Your task to perform on an android device: delete browsing data in the chrome app Image 0: 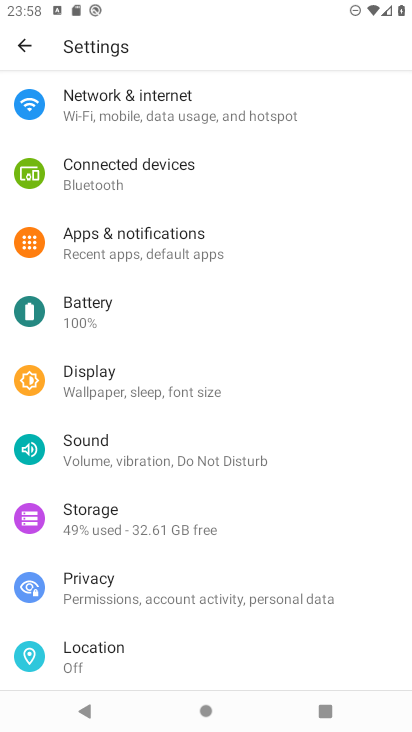
Step 0: press home button
Your task to perform on an android device: delete browsing data in the chrome app Image 1: 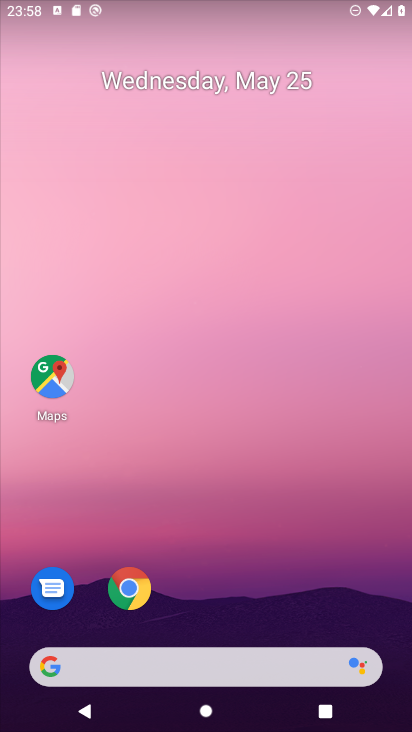
Step 1: drag from (0, 0) to (317, 46)
Your task to perform on an android device: delete browsing data in the chrome app Image 2: 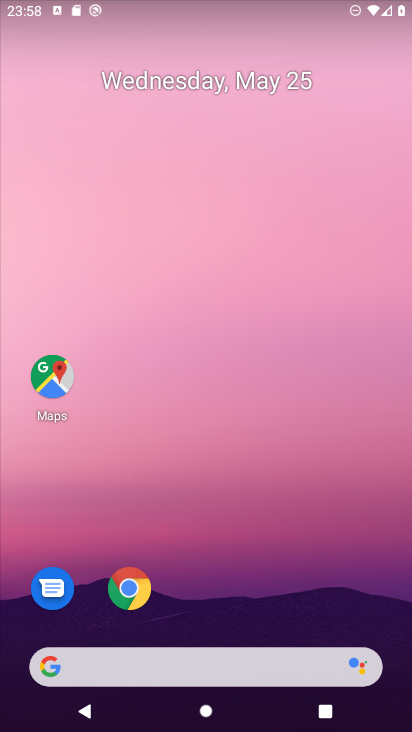
Step 2: click (125, 583)
Your task to perform on an android device: delete browsing data in the chrome app Image 3: 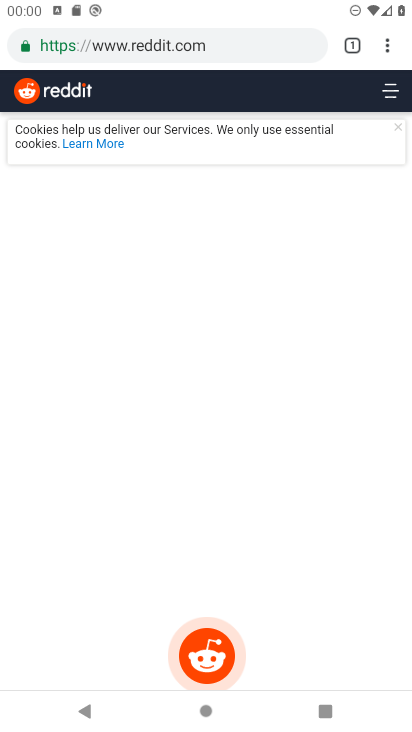
Step 3: click (384, 39)
Your task to perform on an android device: delete browsing data in the chrome app Image 4: 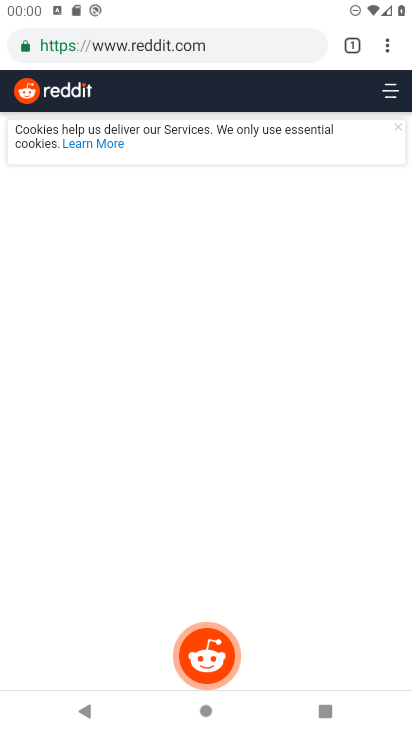
Step 4: click (390, 50)
Your task to perform on an android device: delete browsing data in the chrome app Image 5: 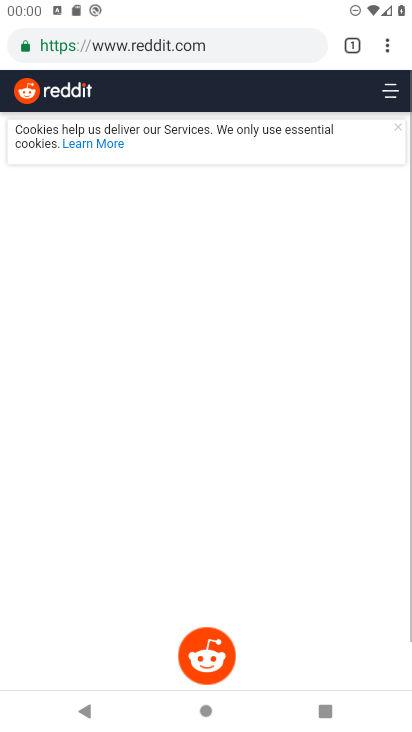
Step 5: click (390, 50)
Your task to perform on an android device: delete browsing data in the chrome app Image 6: 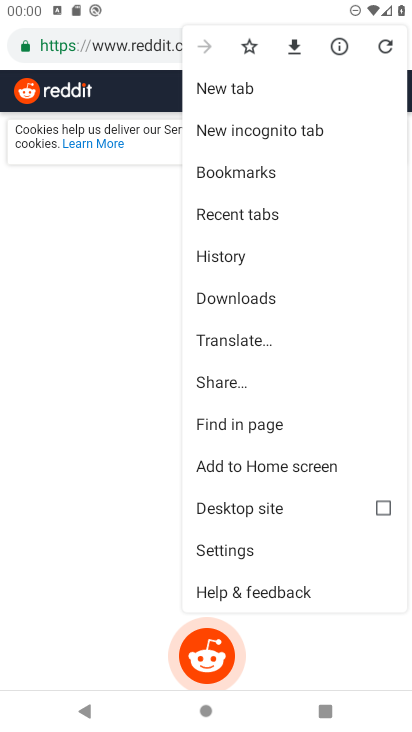
Step 6: click (257, 255)
Your task to perform on an android device: delete browsing data in the chrome app Image 7: 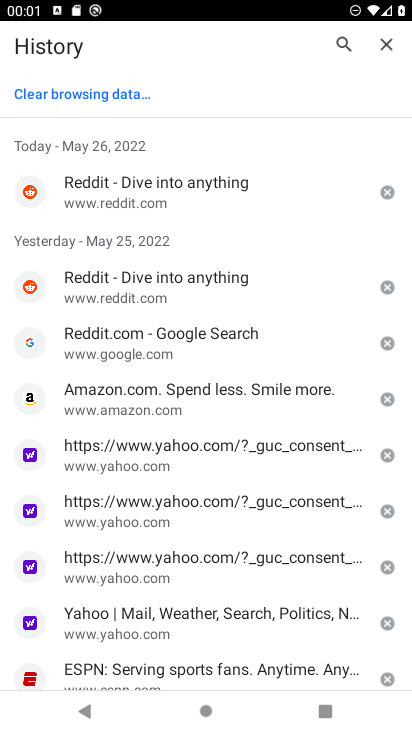
Step 7: click (92, 104)
Your task to perform on an android device: delete browsing data in the chrome app Image 8: 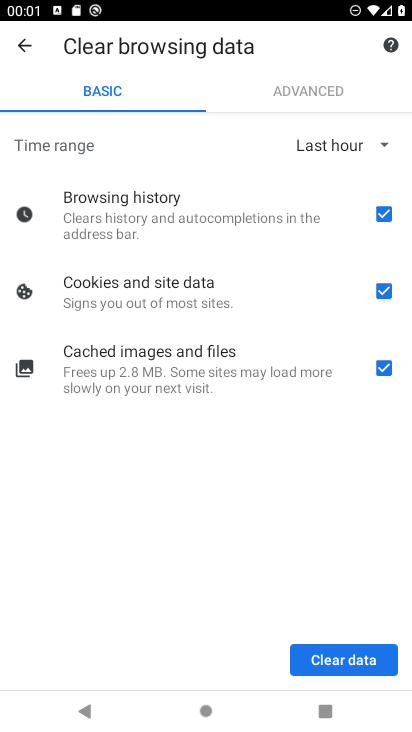
Step 8: click (343, 655)
Your task to perform on an android device: delete browsing data in the chrome app Image 9: 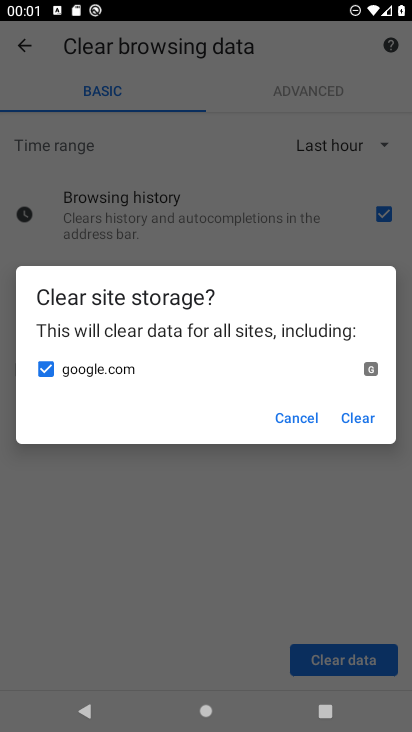
Step 9: click (365, 411)
Your task to perform on an android device: delete browsing data in the chrome app Image 10: 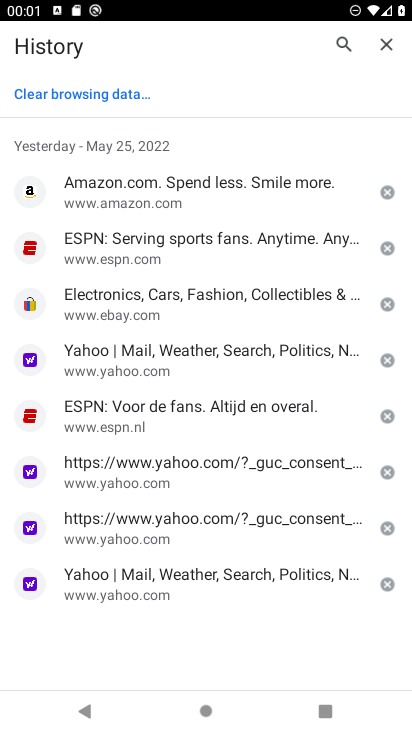
Step 10: task complete